Your task to perform on an android device: delete a single message in the gmail app Image 0: 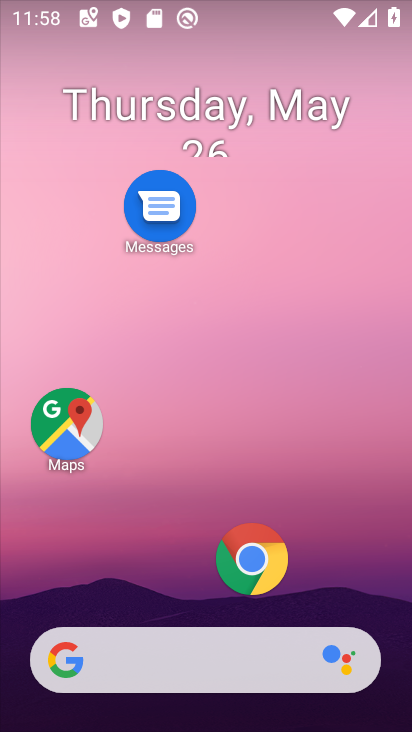
Step 0: press home button
Your task to perform on an android device: delete a single message in the gmail app Image 1: 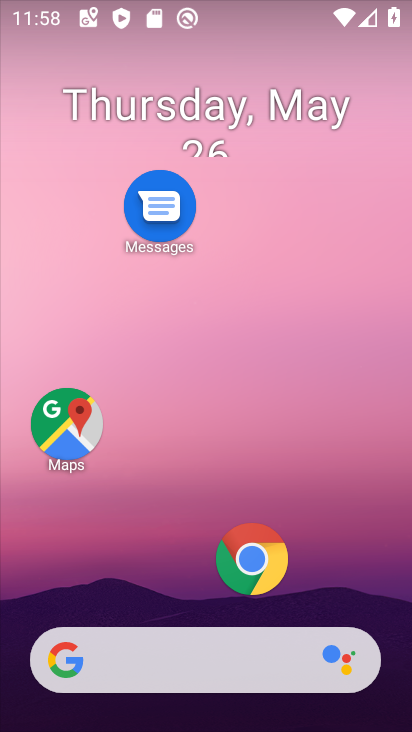
Step 1: drag from (198, 554) to (263, 40)
Your task to perform on an android device: delete a single message in the gmail app Image 2: 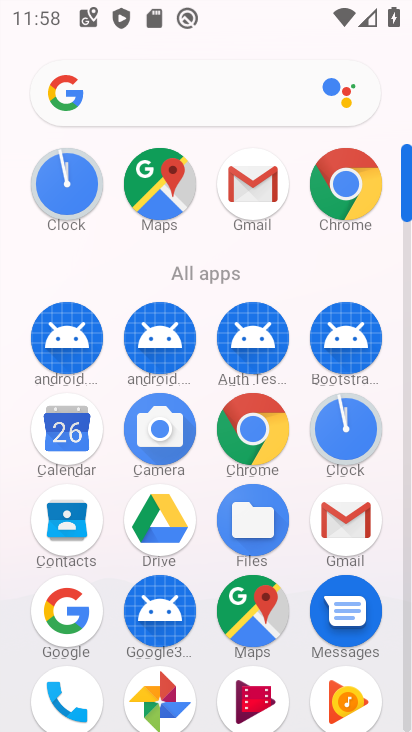
Step 2: click (343, 510)
Your task to perform on an android device: delete a single message in the gmail app Image 3: 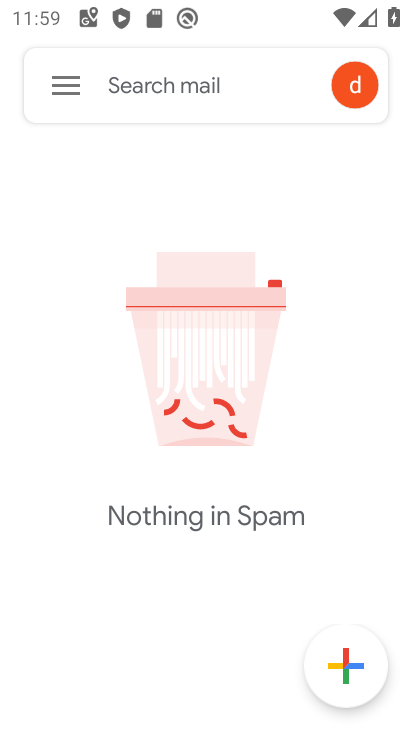
Step 3: click (57, 89)
Your task to perform on an android device: delete a single message in the gmail app Image 4: 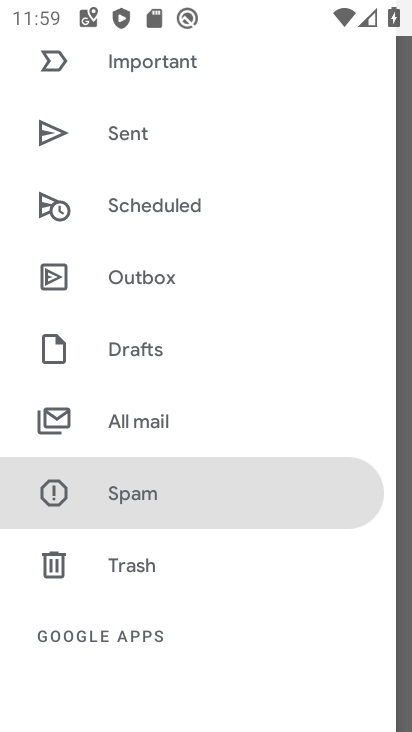
Step 4: click (181, 418)
Your task to perform on an android device: delete a single message in the gmail app Image 5: 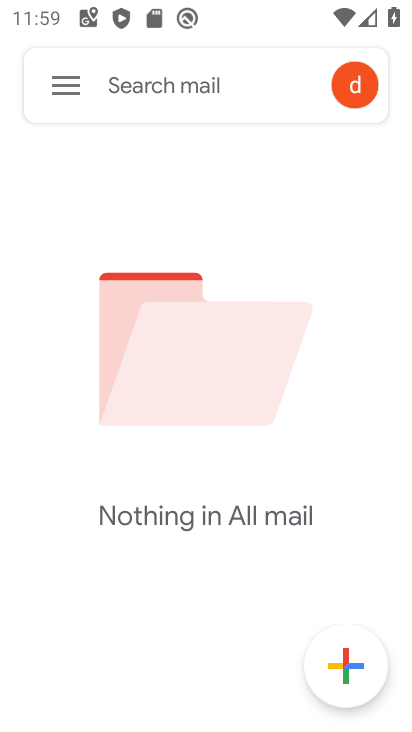
Step 5: task complete